Your task to perform on an android device: Search for Mexican restaurants on Maps Image 0: 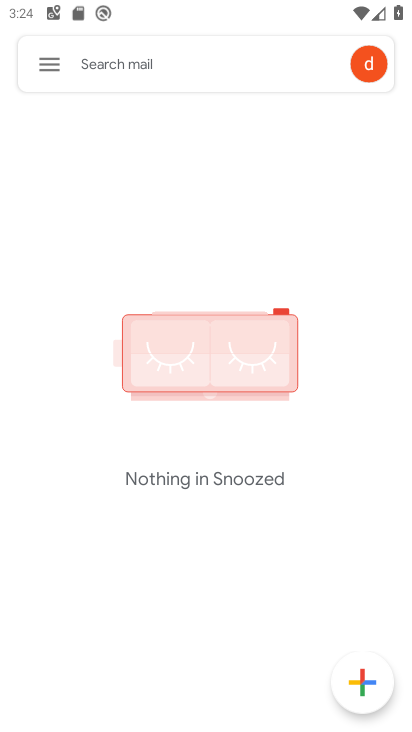
Step 0: press home button
Your task to perform on an android device: Search for Mexican restaurants on Maps Image 1: 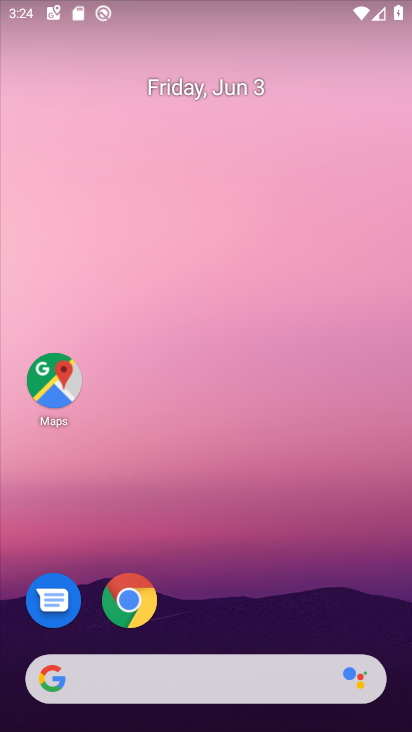
Step 1: click (56, 380)
Your task to perform on an android device: Search for Mexican restaurants on Maps Image 2: 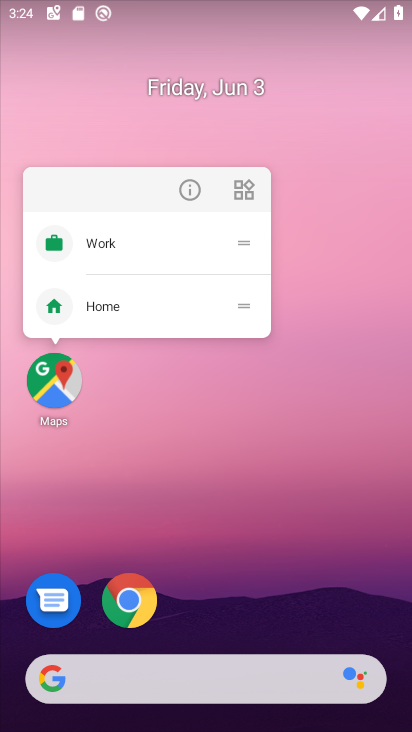
Step 2: click (56, 380)
Your task to perform on an android device: Search for Mexican restaurants on Maps Image 3: 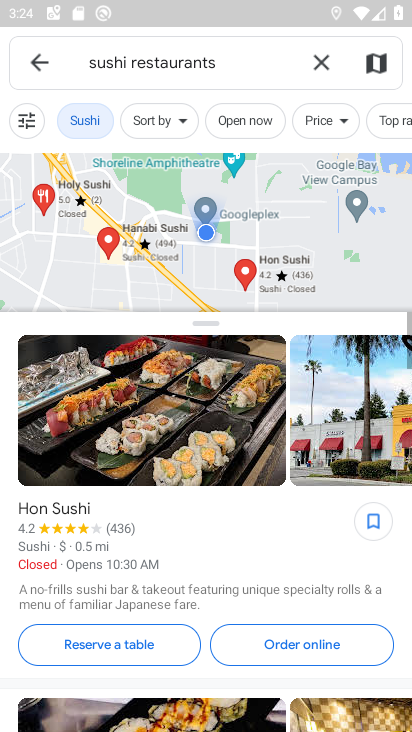
Step 3: click (320, 58)
Your task to perform on an android device: Search for Mexican restaurants on Maps Image 4: 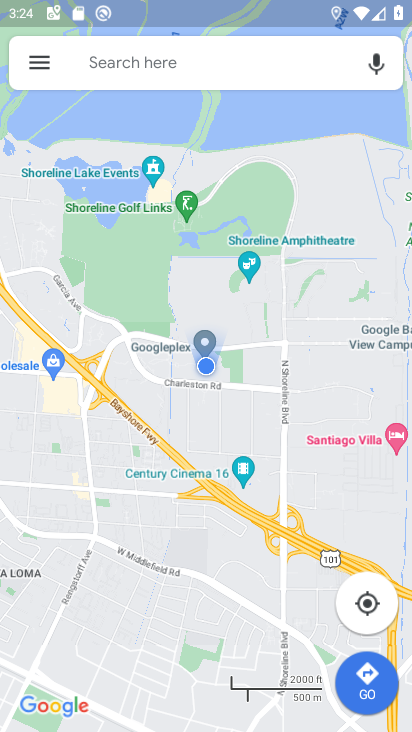
Step 4: click (264, 63)
Your task to perform on an android device: Search for Mexican restaurants on Maps Image 5: 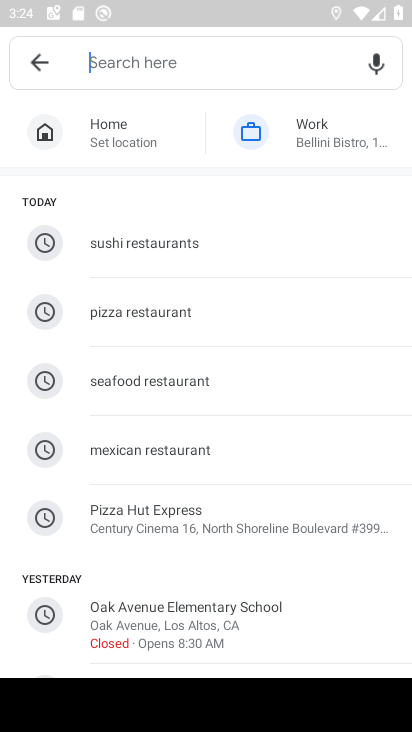
Step 5: type "mexican restaurants"
Your task to perform on an android device: Search for Mexican restaurants on Maps Image 6: 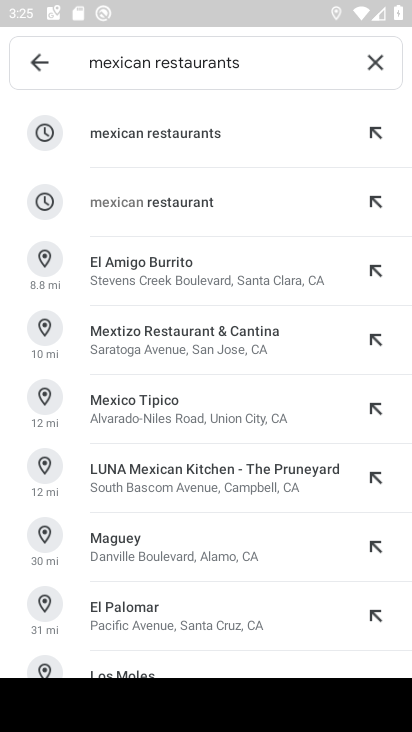
Step 6: click (238, 134)
Your task to perform on an android device: Search for Mexican restaurants on Maps Image 7: 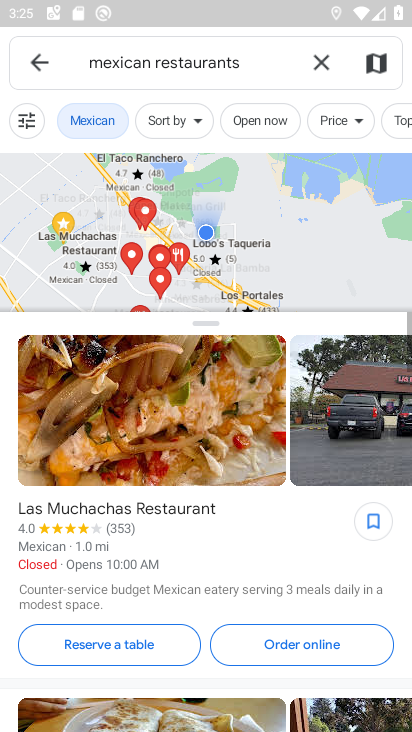
Step 7: task complete